Your task to perform on an android device: Open privacy settings Image 0: 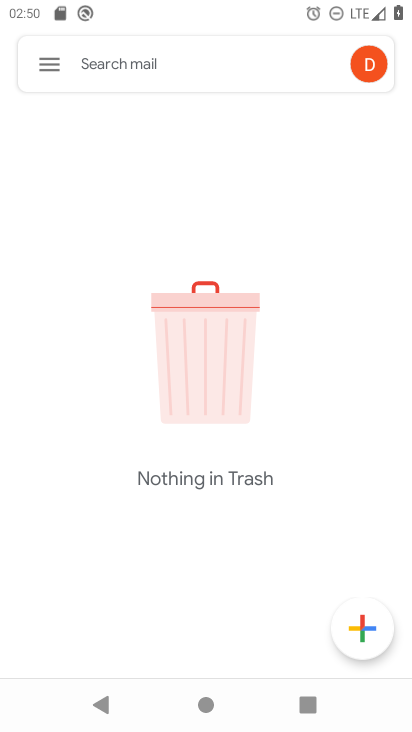
Step 0: press home button
Your task to perform on an android device: Open privacy settings Image 1: 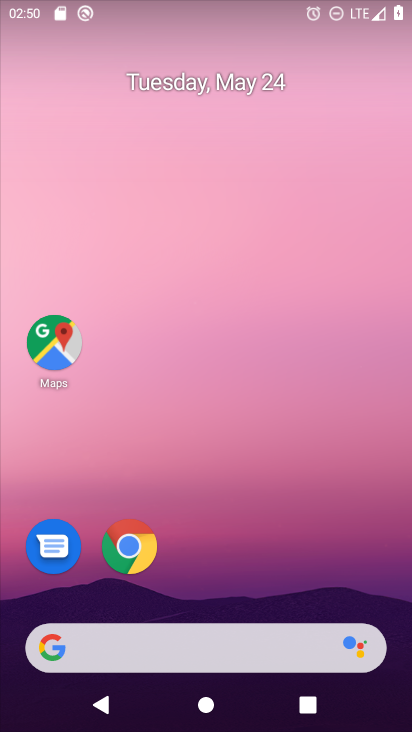
Step 1: drag from (191, 658) to (280, 147)
Your task to perform on an android device: Open privacy settings Image 2: 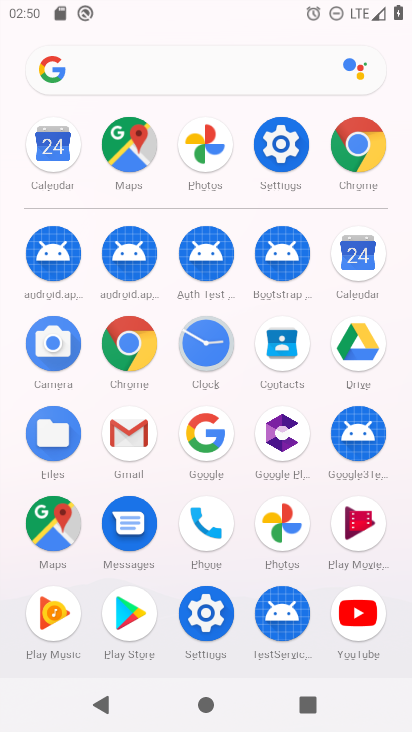
Step 2: click (279, 152)
Your task to perform on an android device: Open privacy settings Image 3: 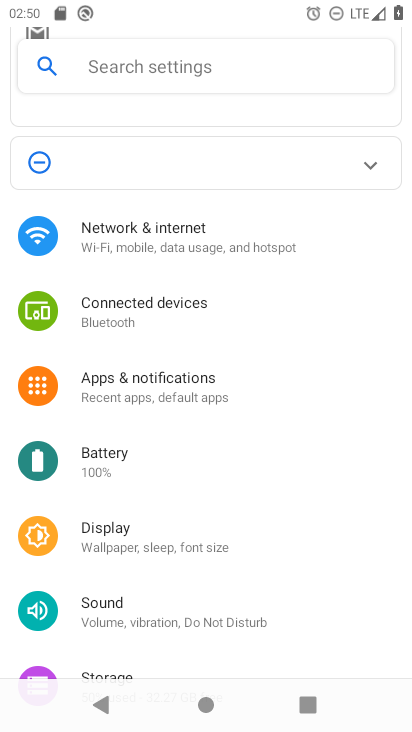
Step 3: drag from (126, 631) to (205, 204)
Your task to perform on an android device: Open privacy settings Image 4: 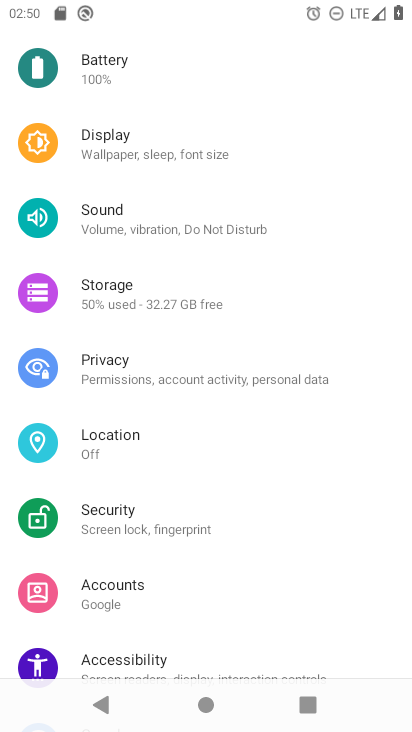
Step 4: click (127, 370)
Your task to perform on an android device: Open privacy settings Image 5: 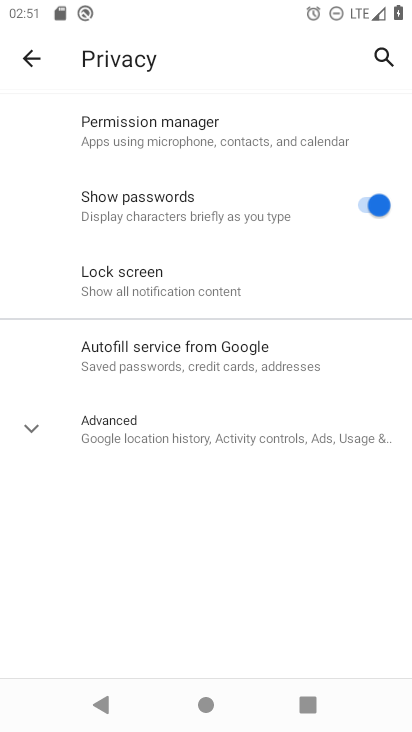
Step 5: task complete